Your task to perform on an android device: Open settings Image 0: 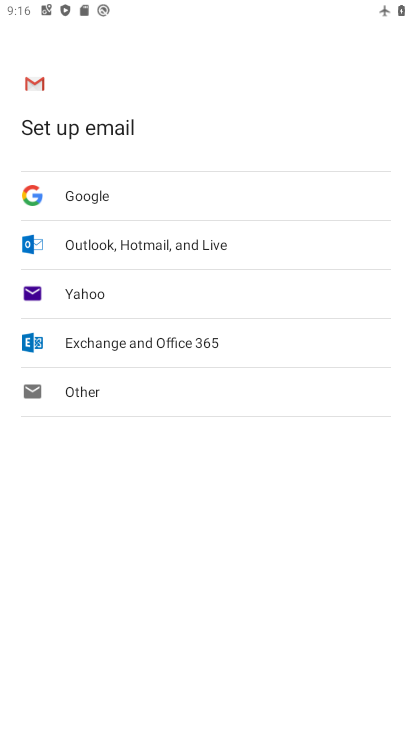
Step 0: press home button
Your task to perform on an android device: Open settings Image 1: 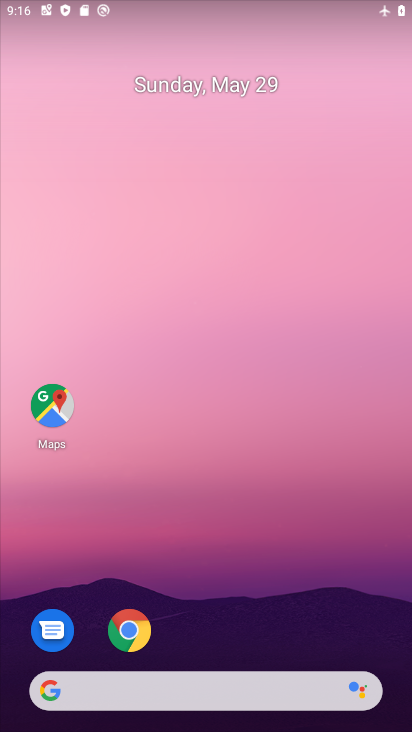
Step 1: drag from (325, 633) to (277, 171)
Your task to perform on an android device: Open settings Image 2: 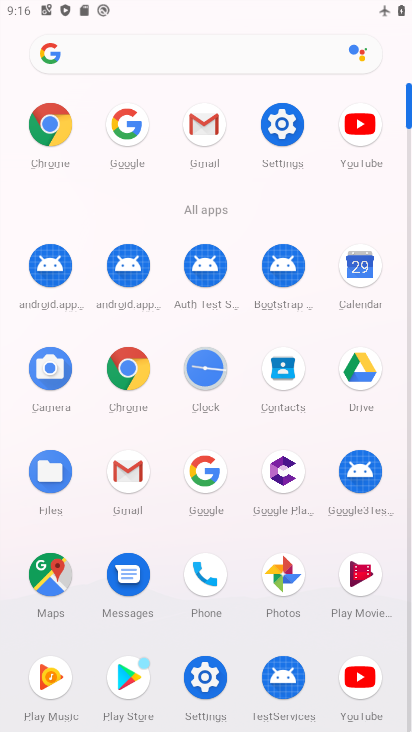
Step 2: click (195, 673)
Your task to perform on an android device: Open settings Image 3: 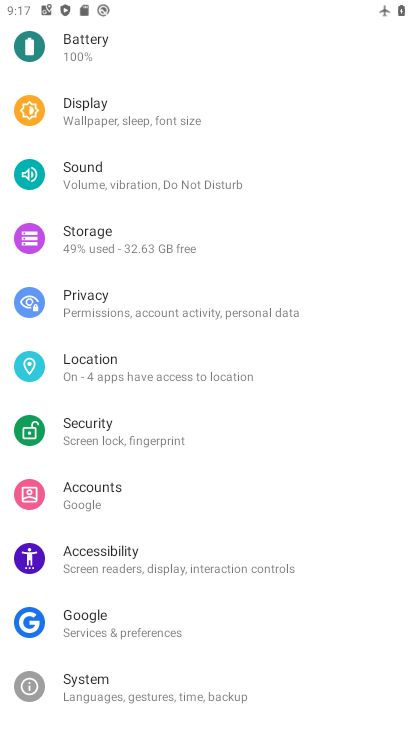
Step 3: task complete